Your task to perform on an android device: Is it going to rain this weekend? Image 0: 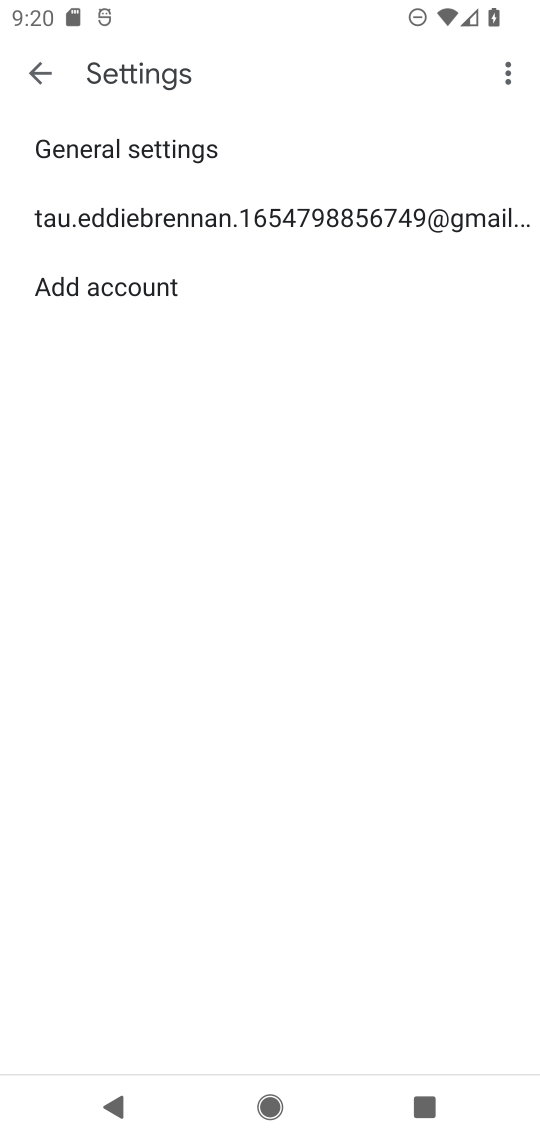
Step 0: press home button
Your task to perform on an android device: Is it going to rain this weekend? Image 1: 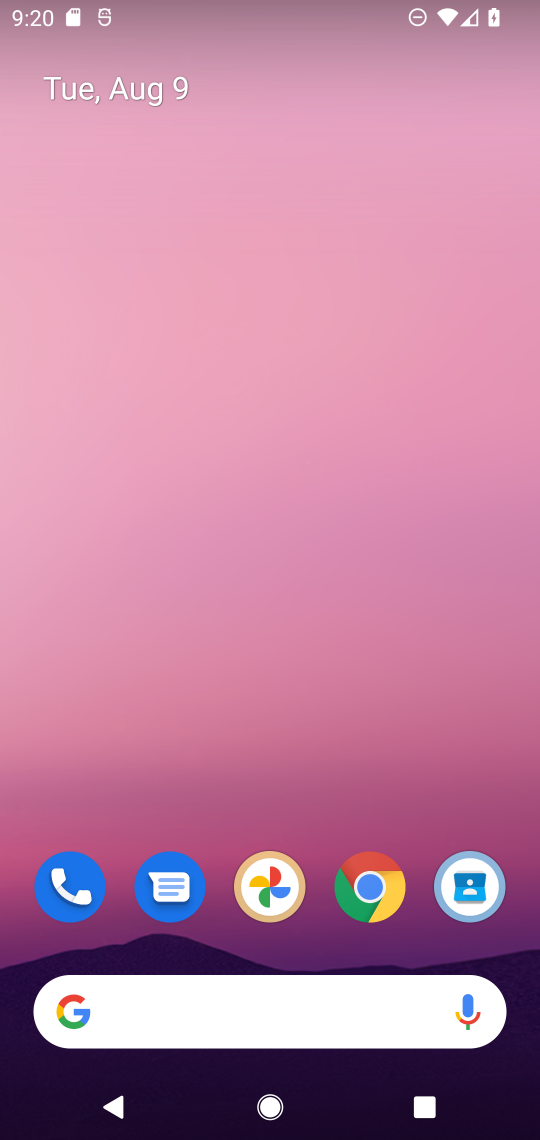
Step 1: drag from (301, 783) to (309, 195)
Your task to perform on an android device: Is it going to rain this weekend? Image 2: 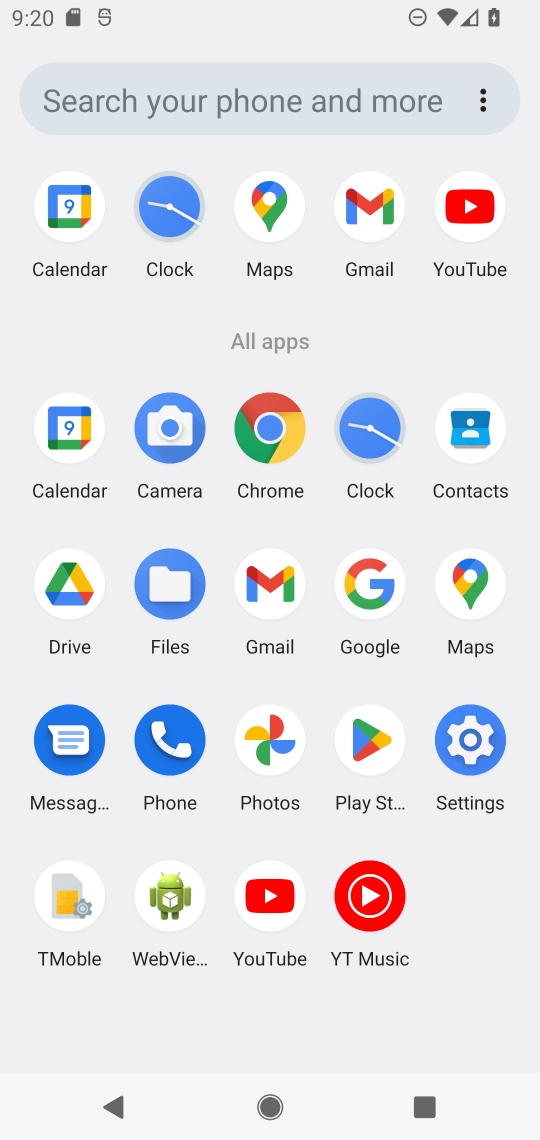
Step 2: click (375, 611)
Your task to perform on an android device: Is it going to rain this weekend? Image 3: 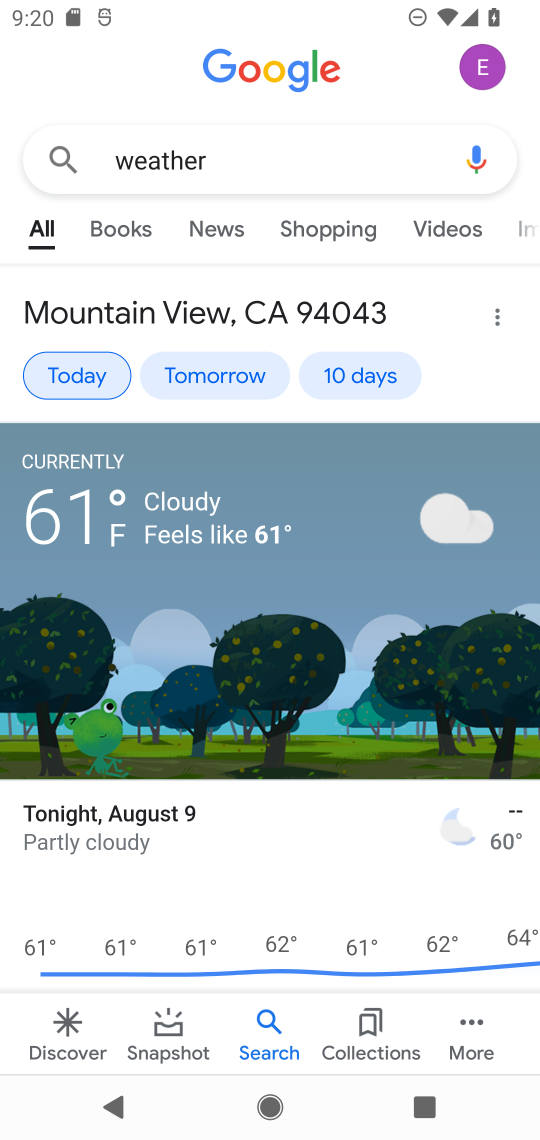
Step 3: click (299, 155)
Your task to perform on an android device: Is it going to rain this weekend? Image 4: 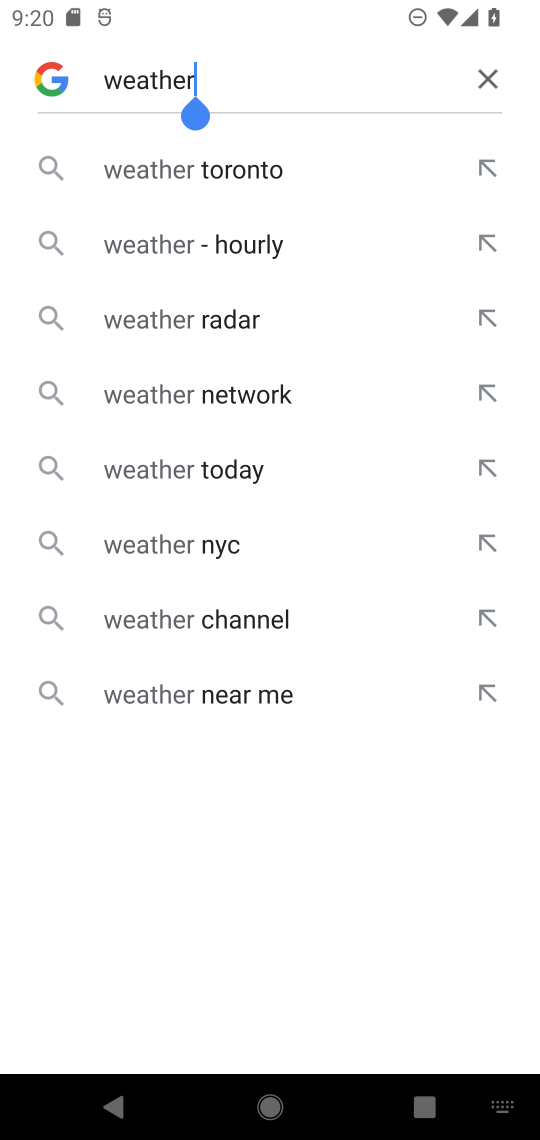
Step 4: click (494, 61)
Your task to perform on an android device: Is it going to rain this weekend? Image 5: 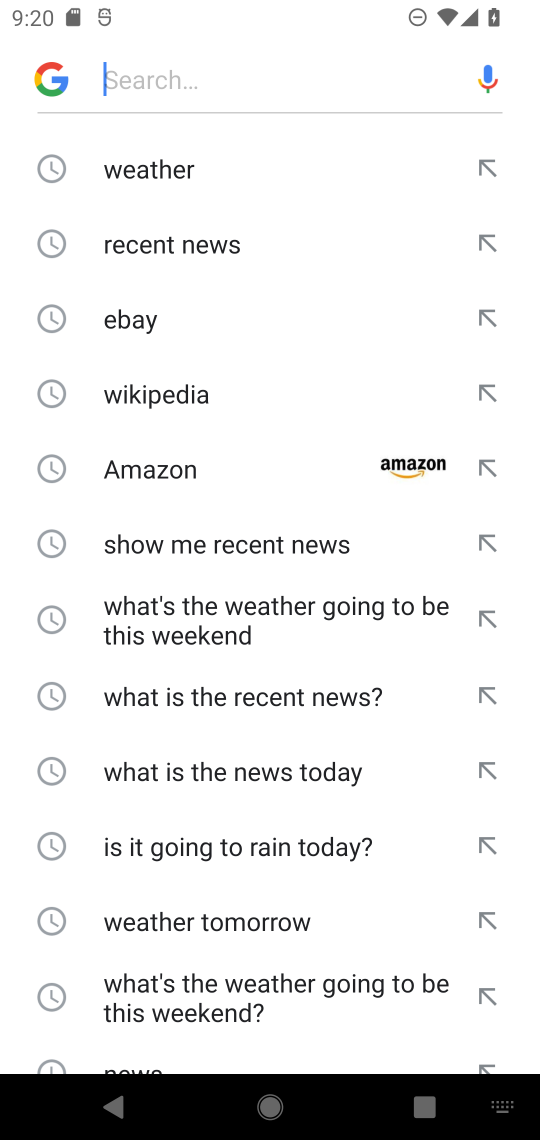
Step 5: click (188, 167)
Your task to perform on an android device: Is it going to rain this weekend? Image 6: 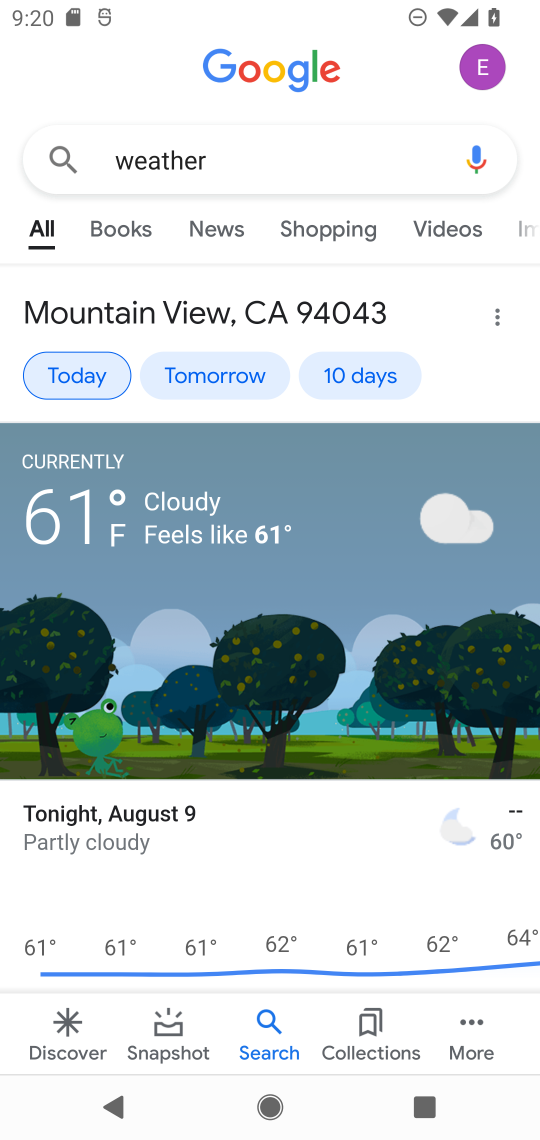
Step 6: click (356, 374)
Your task to perform on an android device: Is it going to rain this weekend? Image 7: 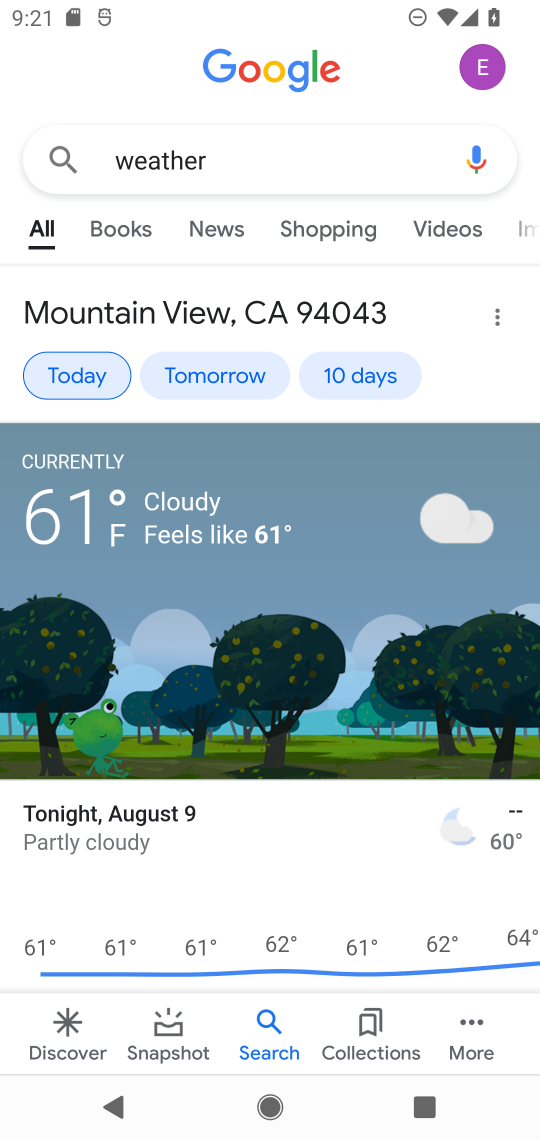
Step 7: click (369, 387)
Your task to perform on an android device: Is it going to rain this weekend? Image 8: 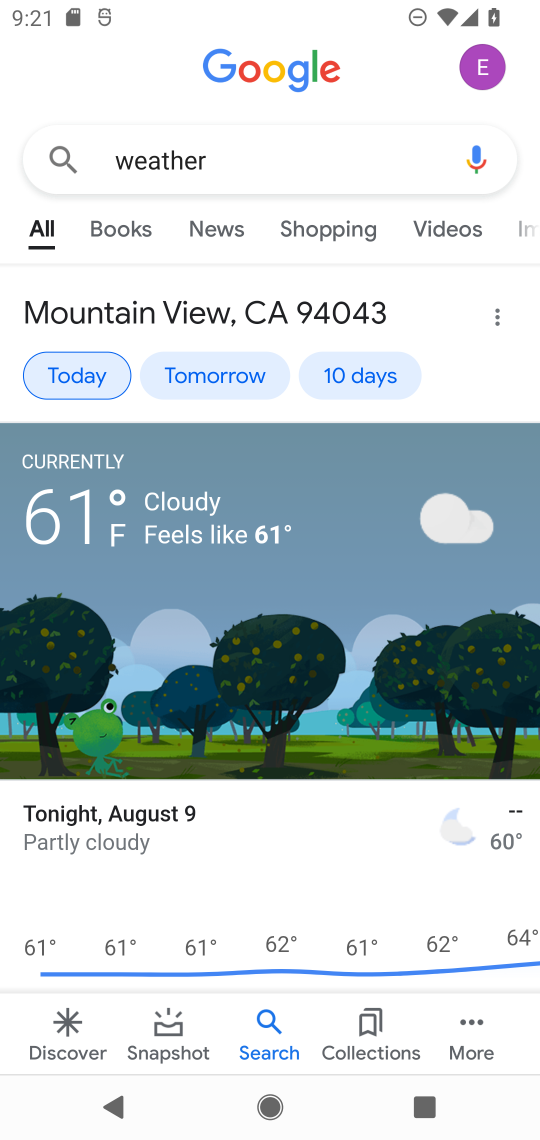
Step 8: click (375, 388)
Your task to perform on an android device: Is it going to rain this weekend? Image 9: 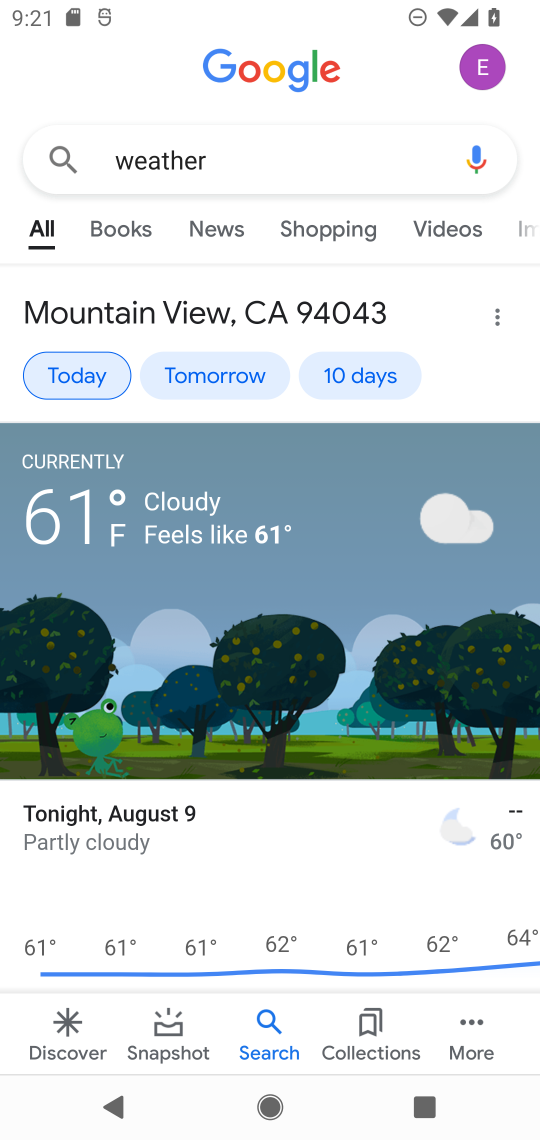
Step 9: click (357, 366)
Your task to perform on an android device: Is it going to rain this weekend? Image 10: 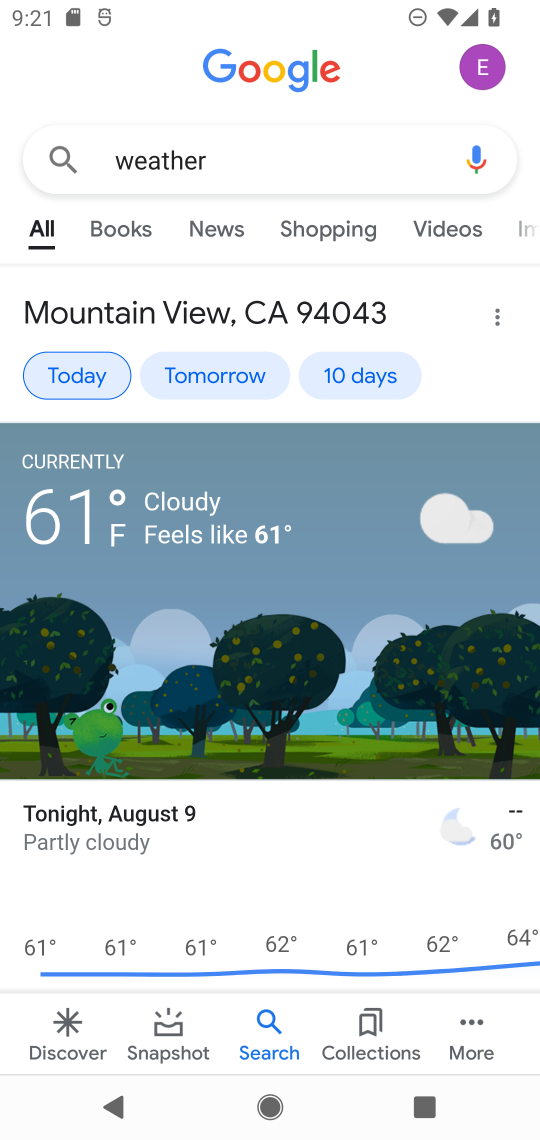
Step 10: task complete